Your task to perform on an android device: toggle improve location accuracy Image 0: 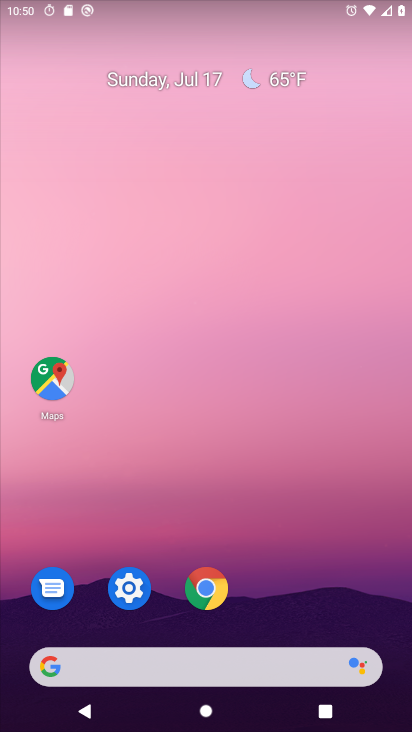
Step 0: drag from (203, 691) to (147, 102)
Your task to perform on an android device: toggle improve location accuracy Image 1: 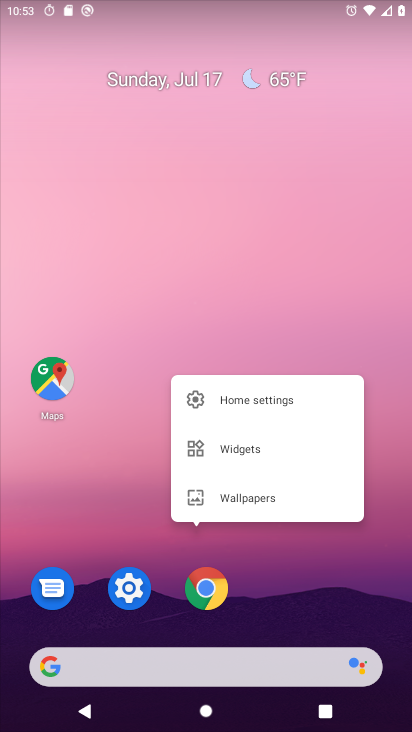
Step 1: drag from (241, 677) to (234, 124)
Your task to perform on an android device: toggle improve location accuracy Image 2: 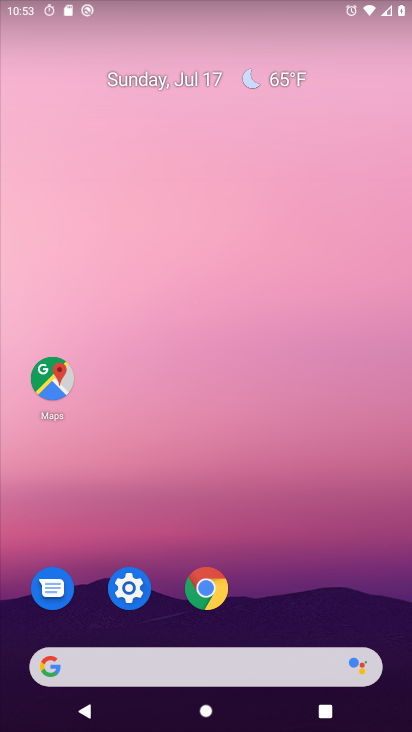
Step 2: drag from (271, 566) to (158, 100)
Your task to perform on an android device: toggle improve location accuracy Image 3: 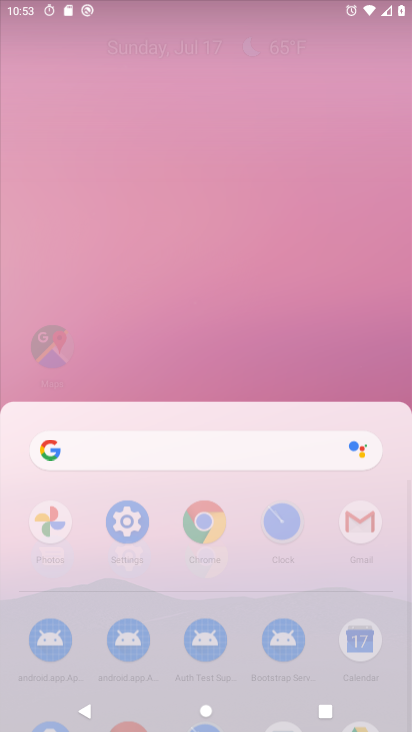
Step 3: drag from (215, 502) to (171, 163)
Your task to perform on an android device: toggle improve location accuracy Image 4: 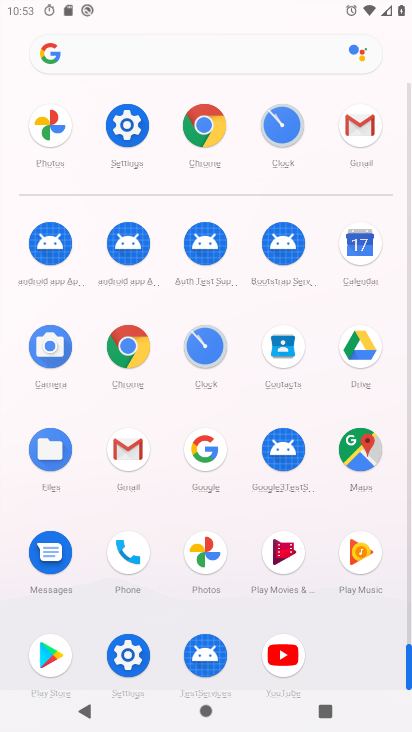
Step 4: drag from (227, 558) to (204, 124)
Your task to perform on an android device: toggle improve location accuracy Image 5: 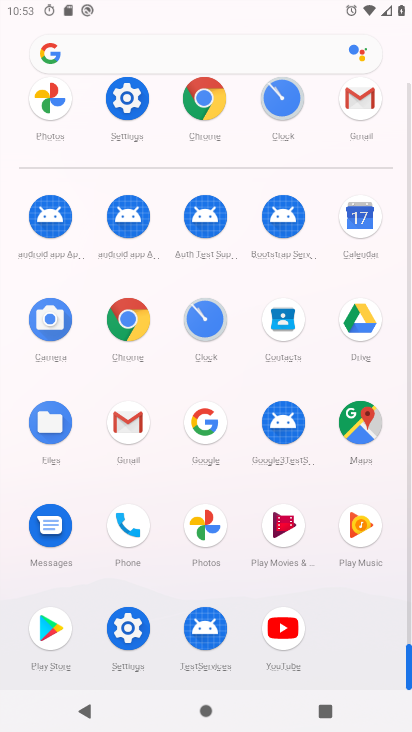
Step 5: click (122, 102)
Your task to perform on an android device: toggle improve location accuracy Image 6: 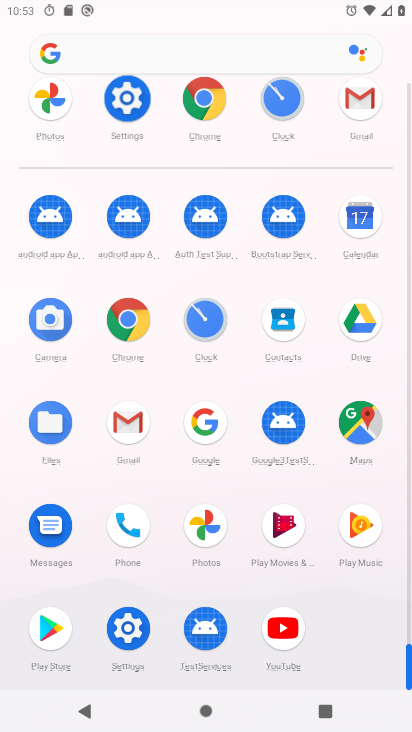
Step 6: click (122, 102)
Your task to perform on an android device: toggle improve location accuracy Image 7: 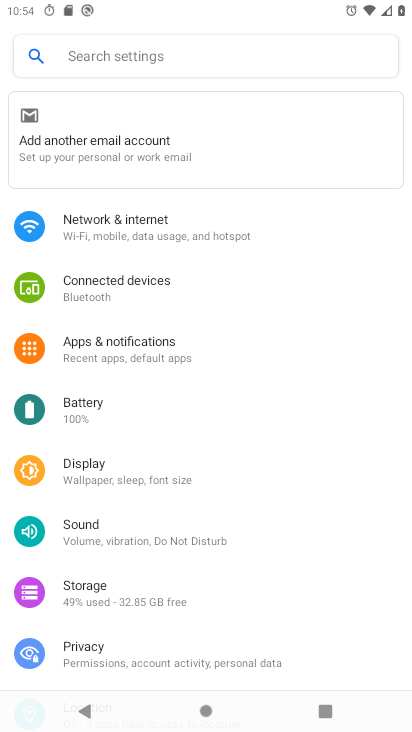
Step 7: drag from (125, 516) to (153, 224)
Your task to perform on an android device: toggle improve location accuracy Image 8: 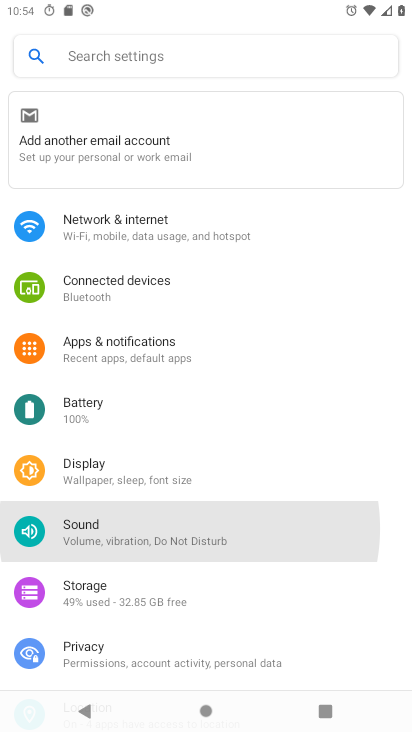
Step 8: drag from (182, 520) to (153, 243)
Your task to perform on an android device: toggle improve location accuracy Image 9: 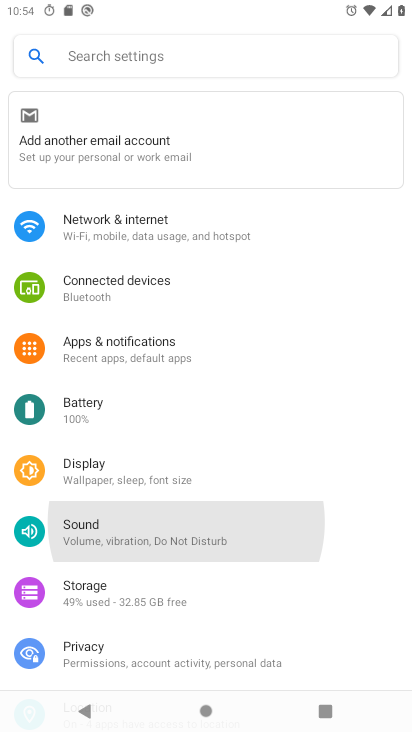
Step 9: drag from (178, 591) to (166, 244)
Your task to perform on an android device: toggle improve location accuracy Image 10: 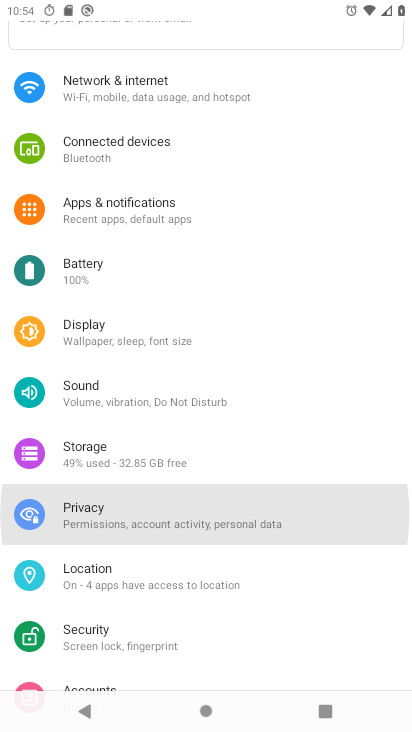
Step 10: drag from (124, 465) to (76, 250)
Your task to perform on an android device: toggle improve location accuracy Image 11: 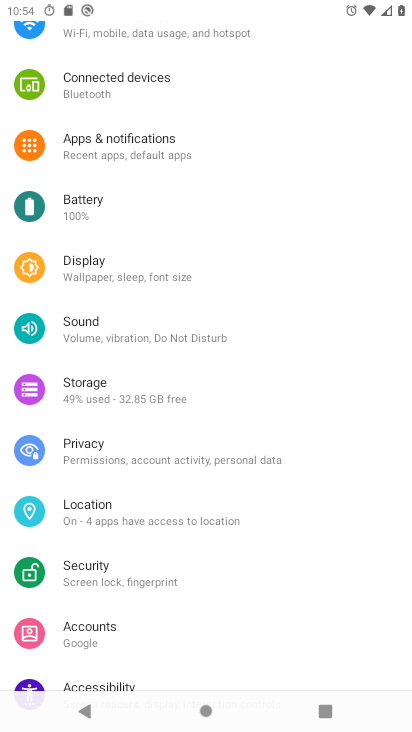
Step 11: drag from (73, 548) to (65, 349)
Your task to perform on an android device: toggle improve location accuracy Image 12: 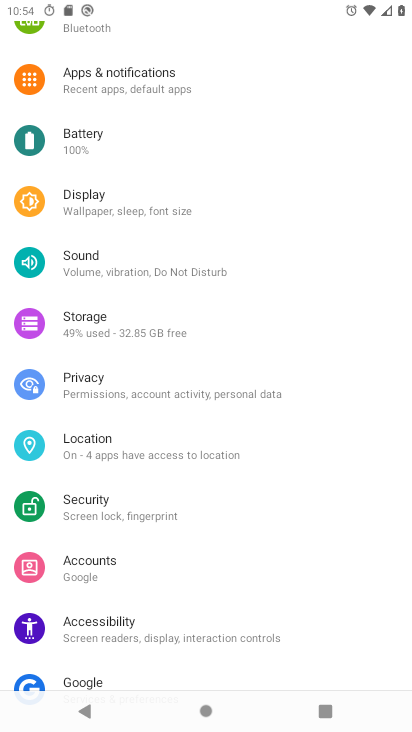
Step 12: click (107, 446)
Your task to perform on an android device: toggle improve location accuracy Image 13: 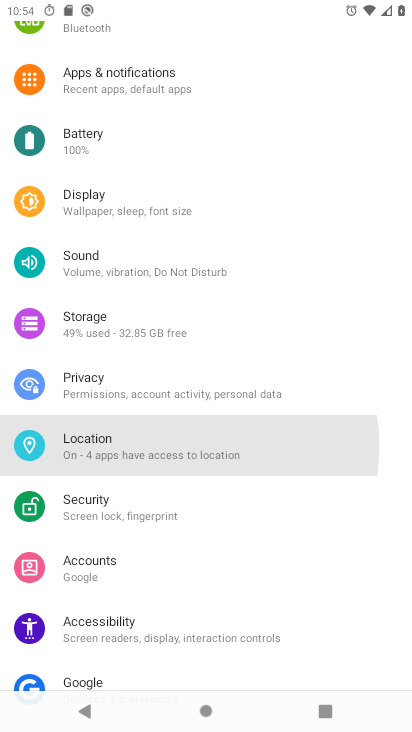
Step 13: click (108, 443)
Your task to perform on an android device: toggle improve location accuracy Image 14: 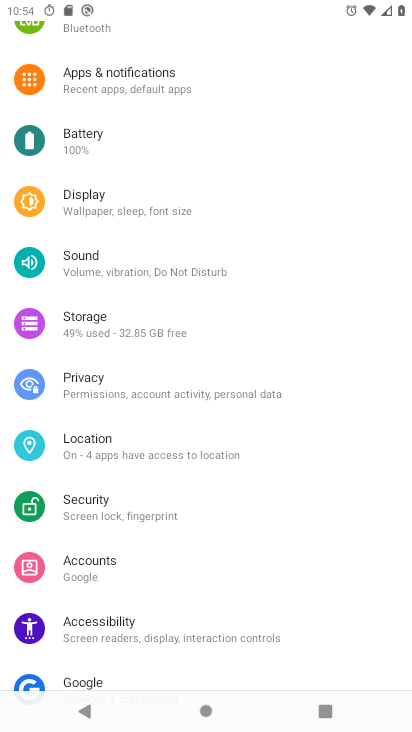
Step 14: click (108, 443)
Your task to perform on an android device: toggle improve location accuracy Image 15: 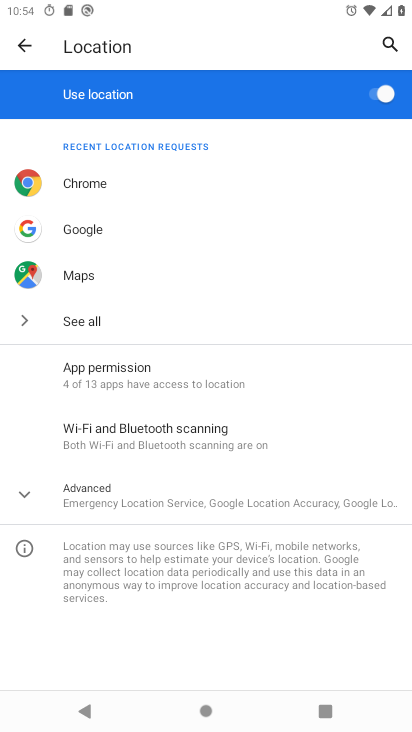
Step 15: click (151, 500)
Your task to perform on an android device: toggle improve location accuracy Image 16: 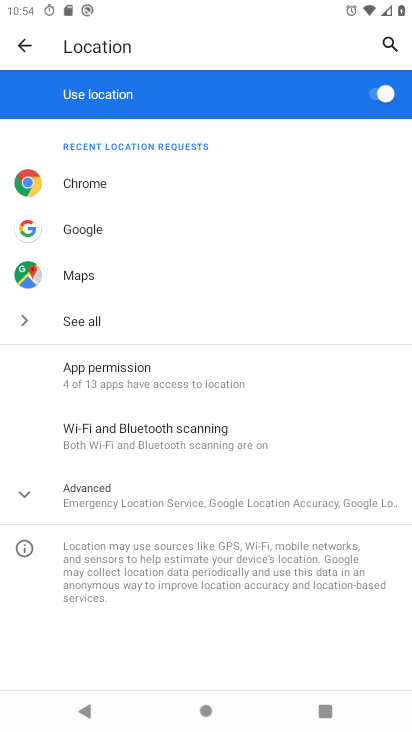
Step 16: click (151, 500)
Your task to perform on an android device: toggle improve location accuracy Image 17: 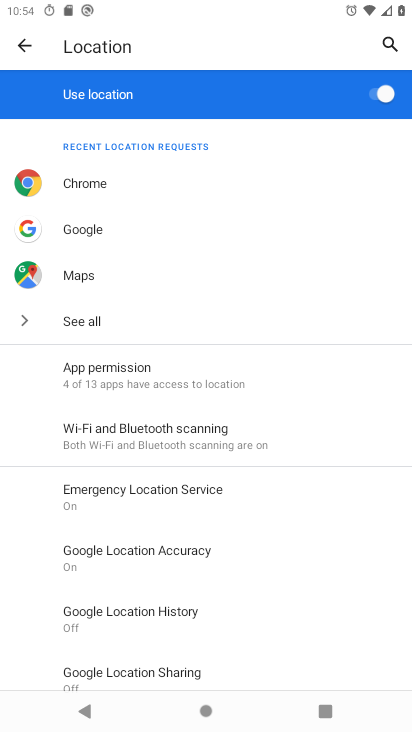
Step 17: click (165, 545)
Your task to perform on an android device: toggle improve location accuracy Image 18: 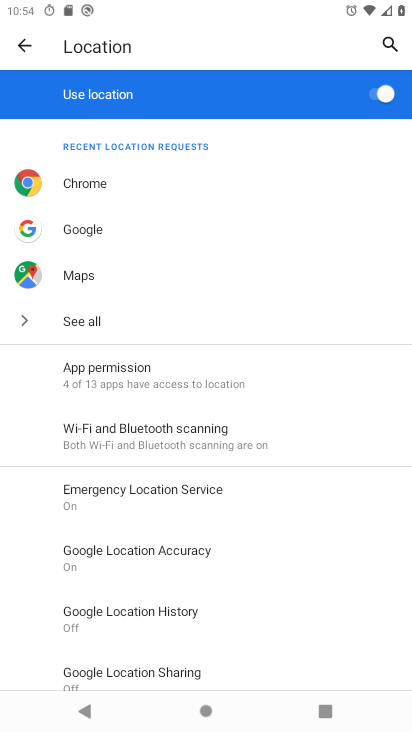
Step 18: click (165, 546)
Your task to perform on an android device: toggle improve location accuracy Image 19: 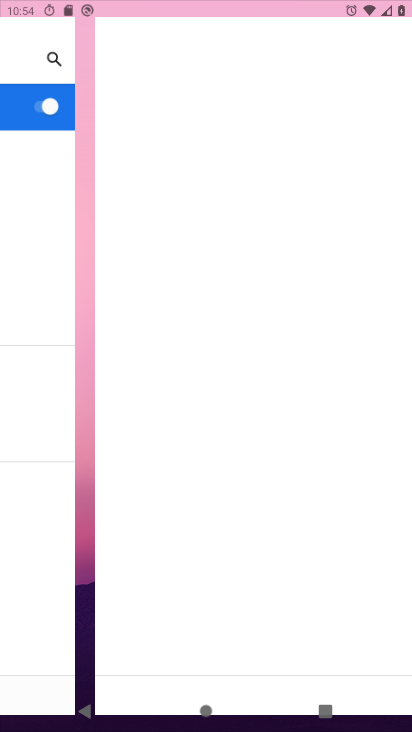
Step 19: click (165, 546)
Your task to perform on an android device: toggle improve location accuracy Image 20: 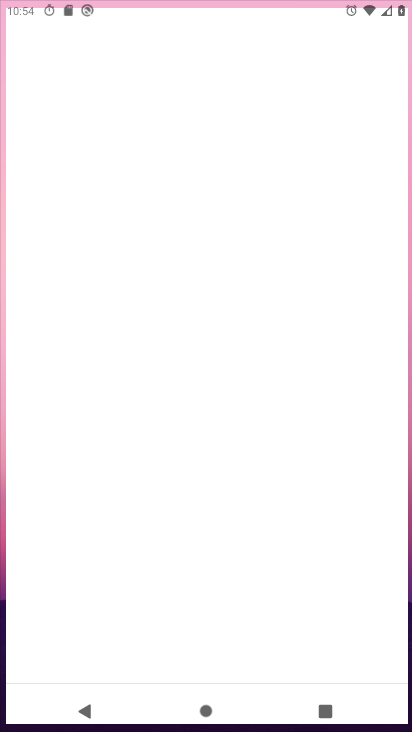
Step 20: click (167, 548)
Your task to perform on an android device: toggle improve location accuracy Image 21: 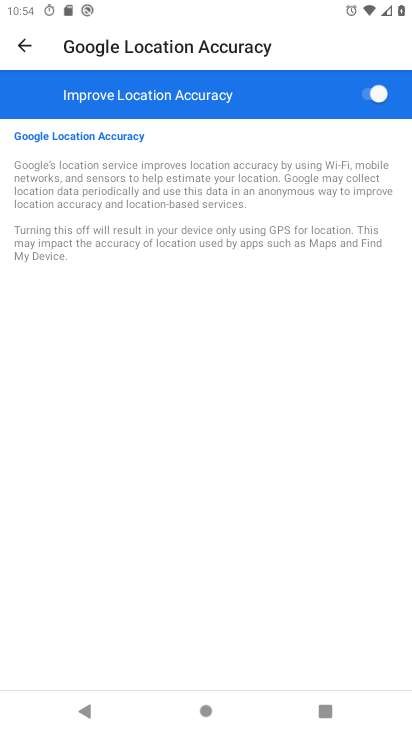
Step 21: click (380, 82)
Your task to perform on an android device: toggle improve location accuracy Image 22: 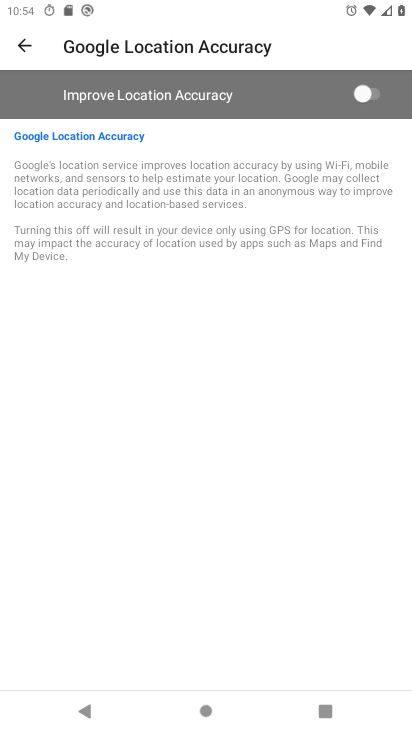
Step 22: task complete